Your task to perform on an android device: Search for "razer naga" on newegg, select the first entry, add it to the cart, then select checkout. Image 0: 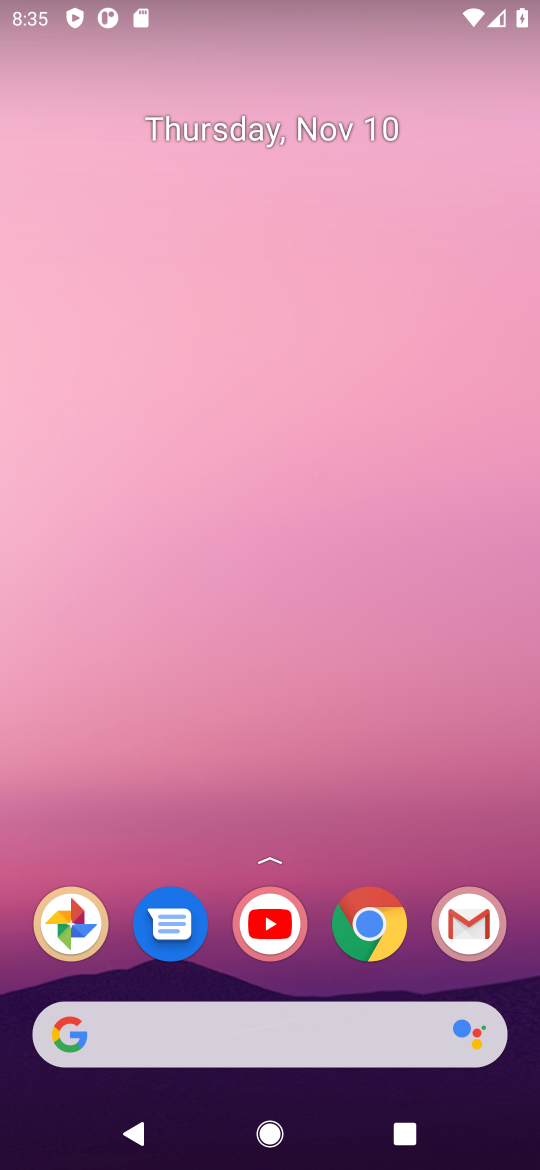
Step 0: click (379, 940)
Your task to perform on an android device: Search for "razer naga" on newegg, select the first entry, add it to the cart, then select checkout. Image 1: 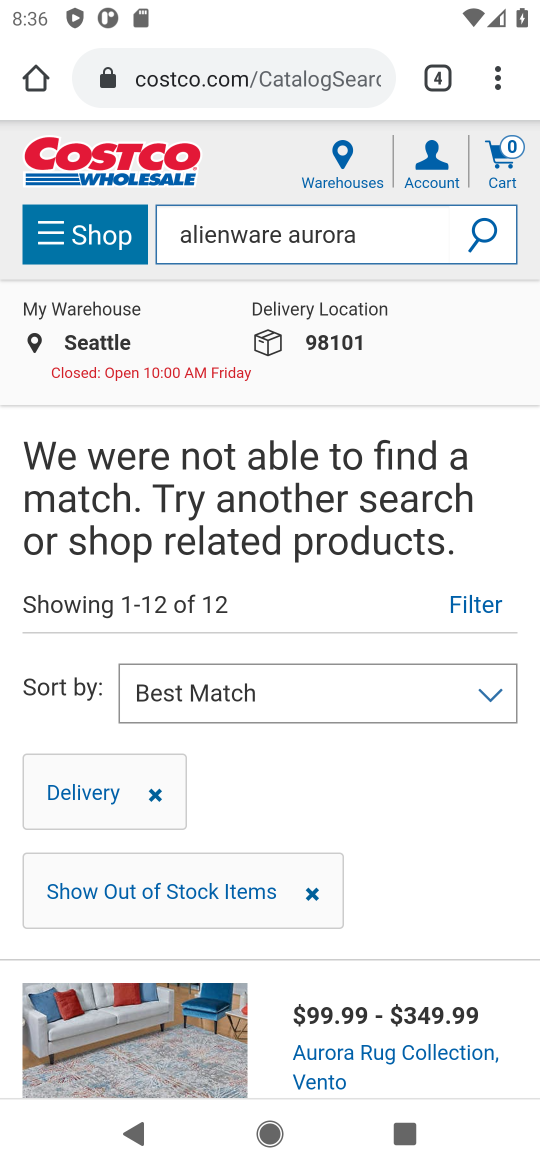
Step 1: click (202, 73)
Your task to perform on an android device: Search for "razer naga" on newegg, select the first entry, add it to the cart, then select checkout. Image 2: 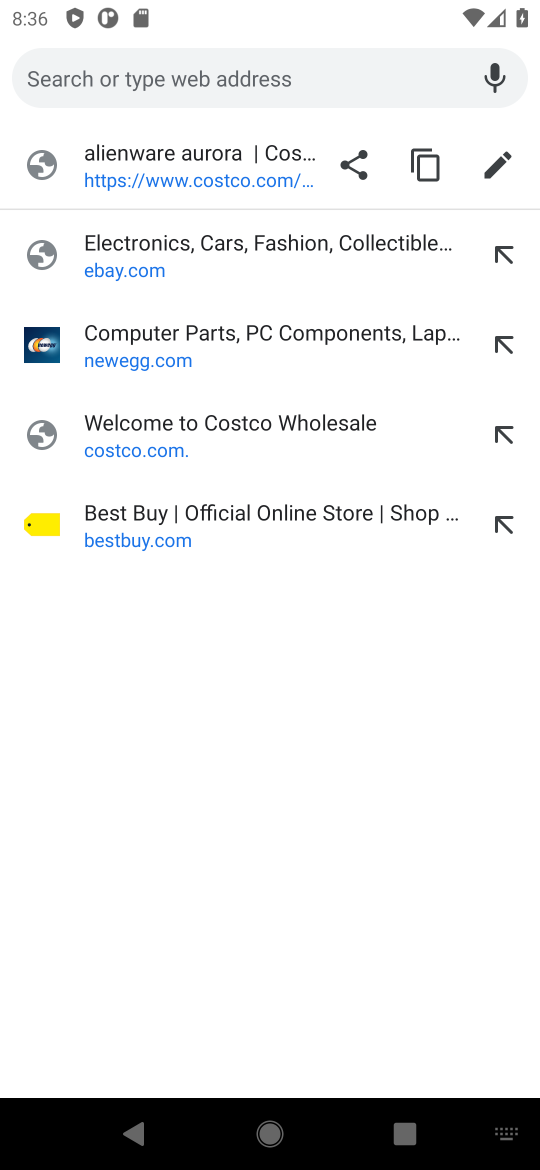
Step 2: click (116, 334)
Your task to perform on an android device: Search for "razer naga" on newegg, select the first entry, add it to the cart, then select checkout. Image 3: 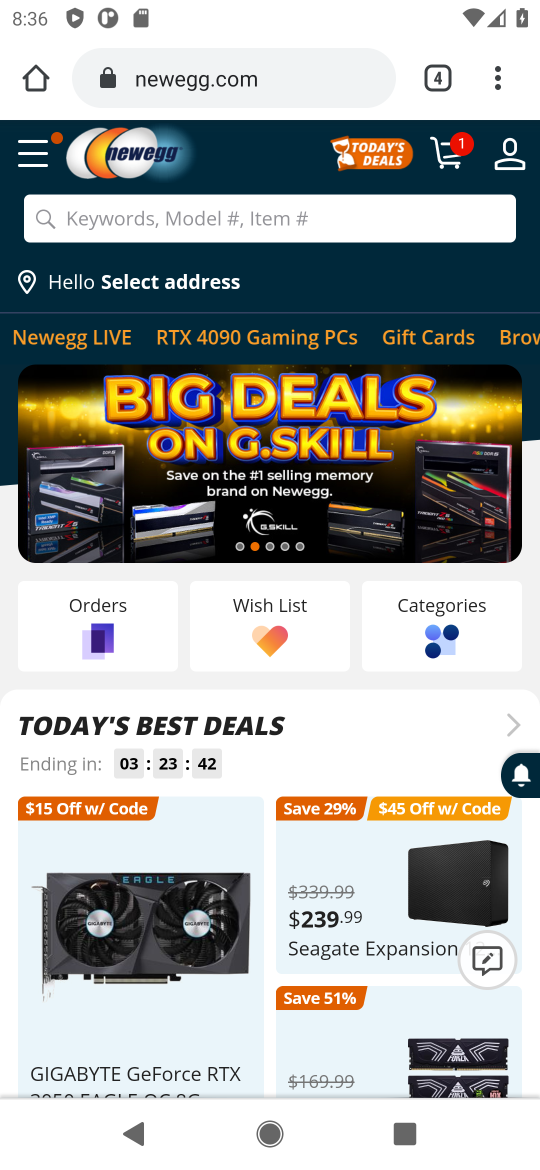
Step 3: click (191, 225)
Your task to perform on an android device: Search for "razer naga" on newegg, select the first entry, add it to the cart, then select checkout. Image 4: 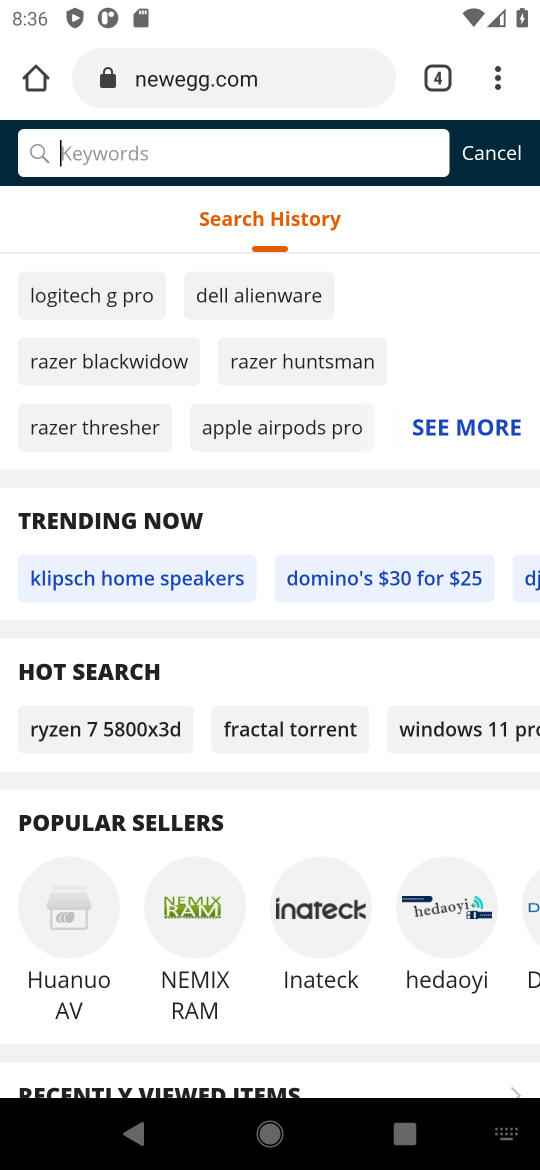
Step 4: type "razer naga"
Your task to perform on an android device: Search for "razer naga" on newegg, select the first entry, add it to the cart, then select checkout. Image 5: 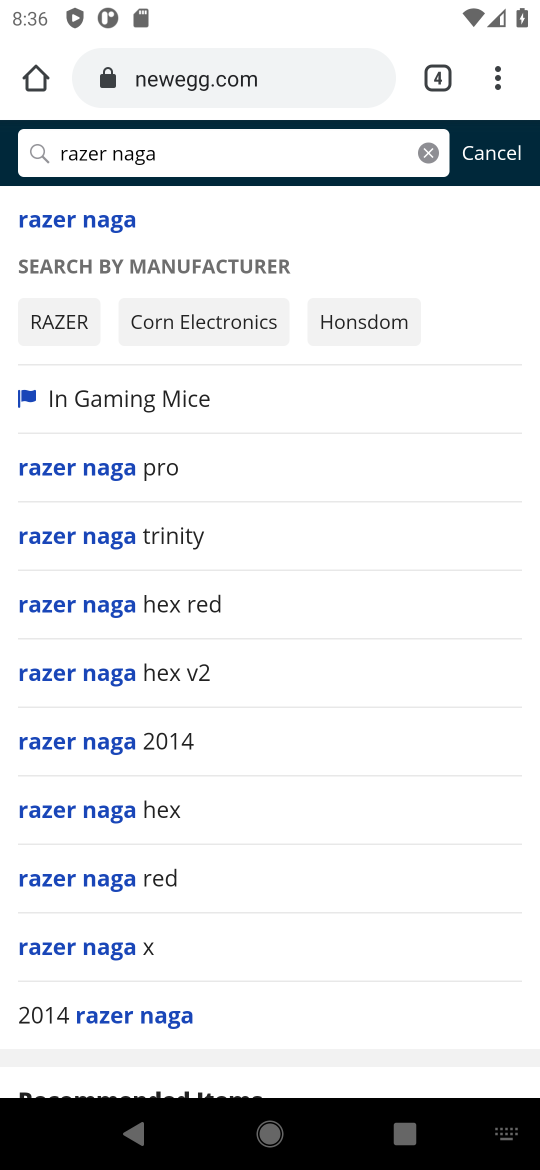
Step 5: click (86, 228)
Your task to perform on an android device: Search for "razer naga" on newegg, select the first entry, add it to the cart, then select checkout. Image 6: 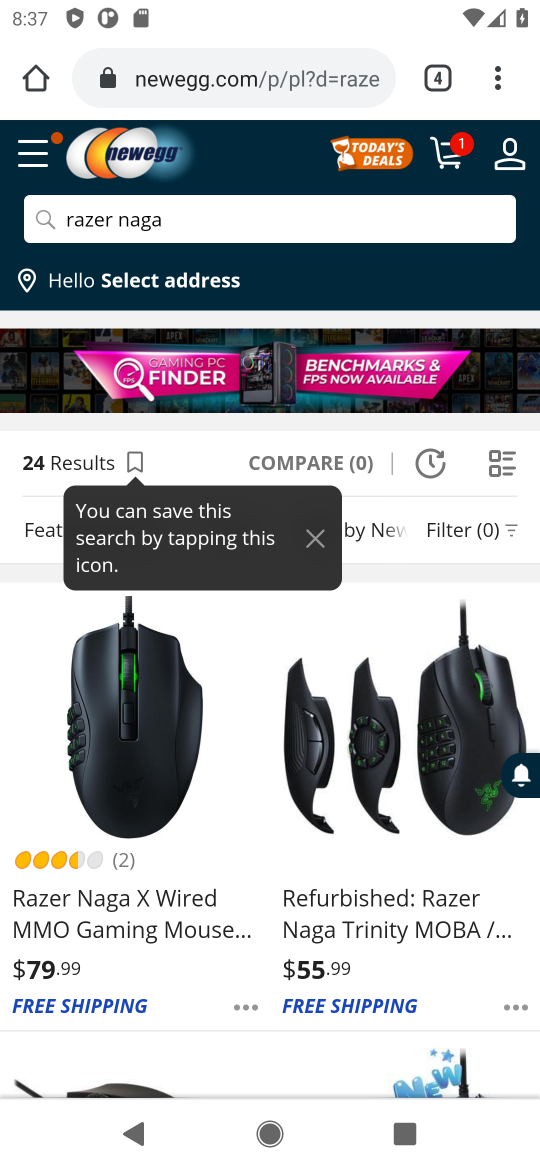
Step 6: drag from (218, 797) to (202, 465)
Your task to perform on an android device: Search for "razer naga" on newegg, select the first entry, add it to the cart, then select checkout. Image 7: 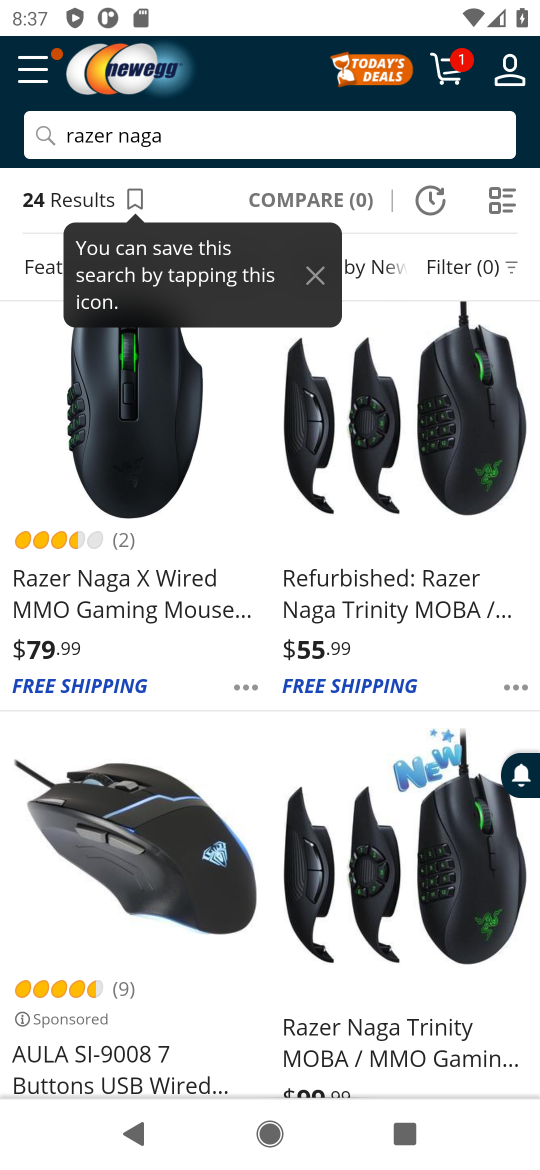
Step 7: click (130, 478)
Your task to perform on an android device: Search for "razer naga" on newegg, select the first entry, add it to the cart, then select checkout. Image 8: 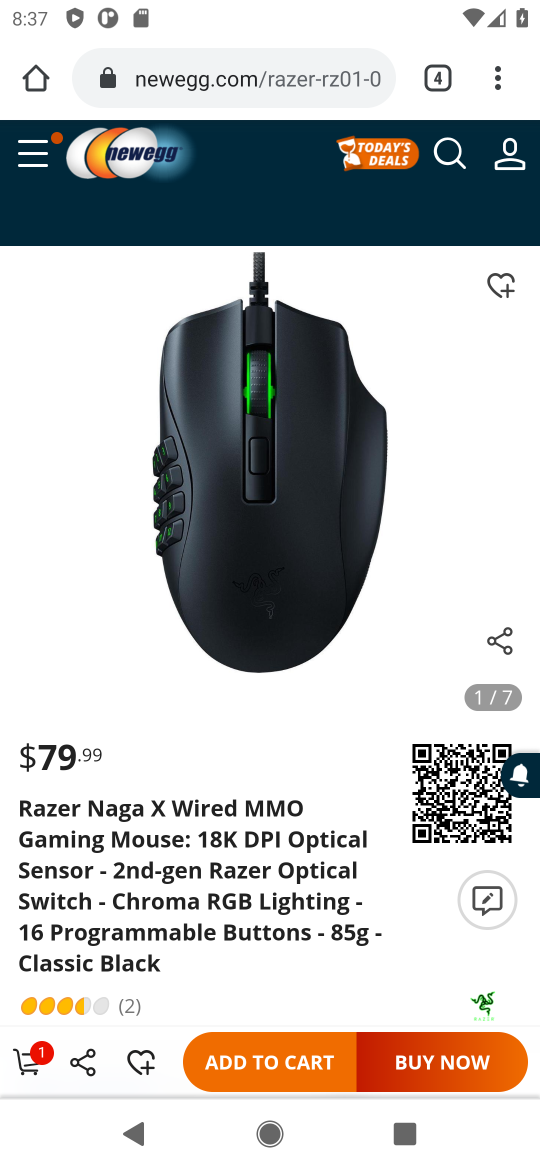
Step 8: click (265, 1073)
Your task to perform on an android device: Search for "razer naga" on newegg, select the first entry, add it to the cart, then select checkout. Image 9: 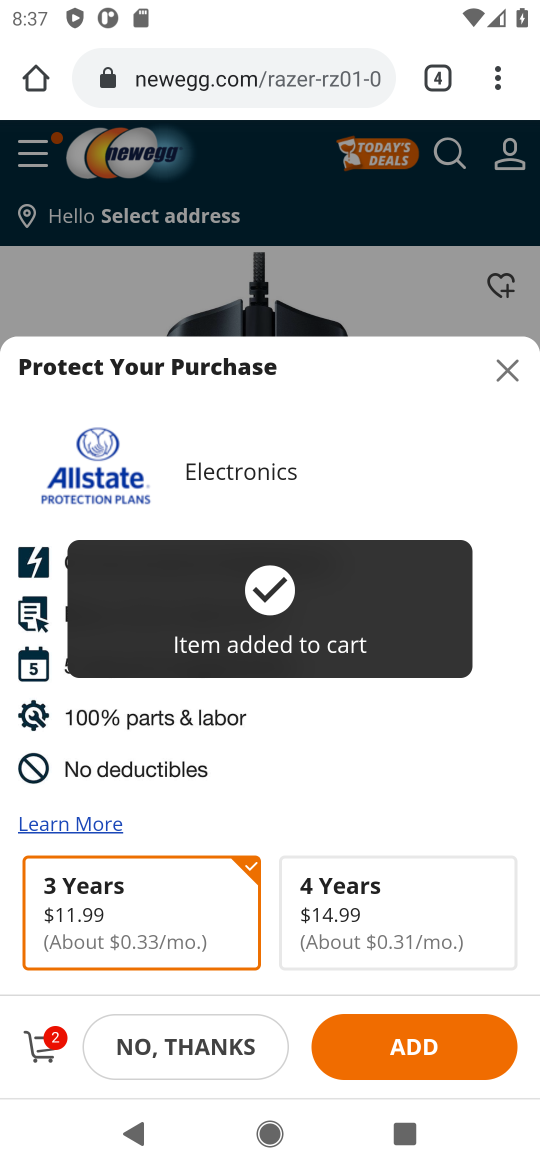
Step 9: click (35, 1055)
Your task to perform on an android device: Search for "razer naga" on newegg, select the first entry, add it to the cart, then select checkout. Image 10: 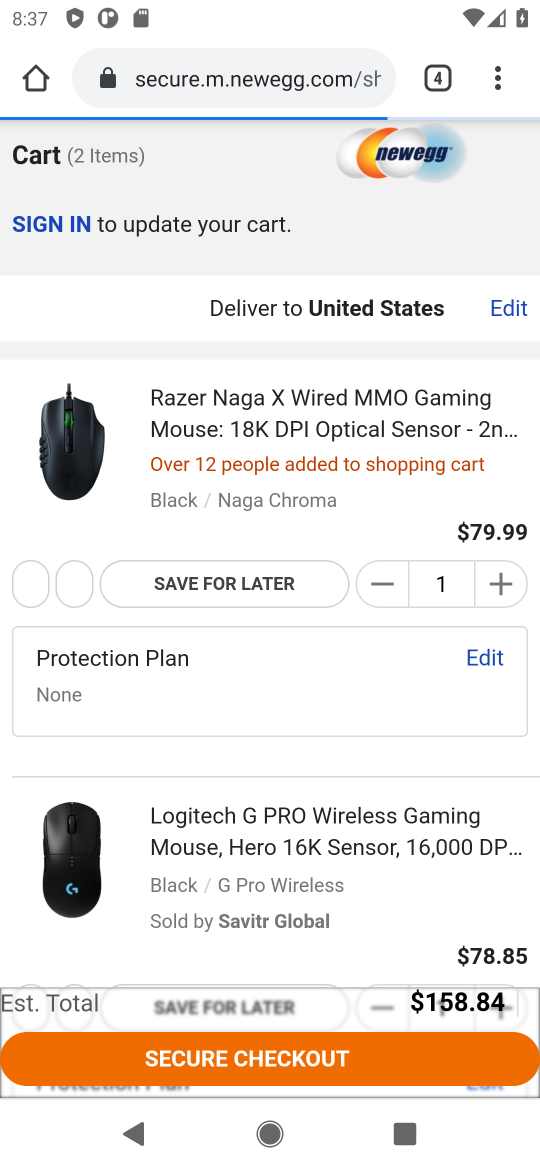
Step 10: click (336, 1045)
Your task to perform on an android device: Search for "razer naga" on newegg, select the first entry, add it to the cart, then select checkout. Image 11: 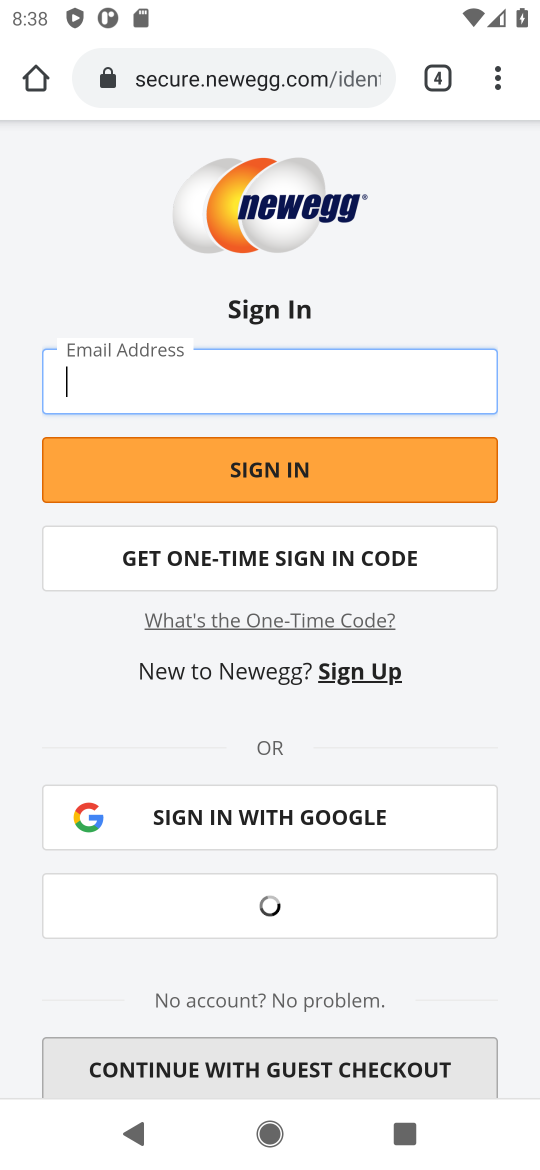
Step 11: task complete